Your task to perform on an android device: change the upload size in google photos Image 0: 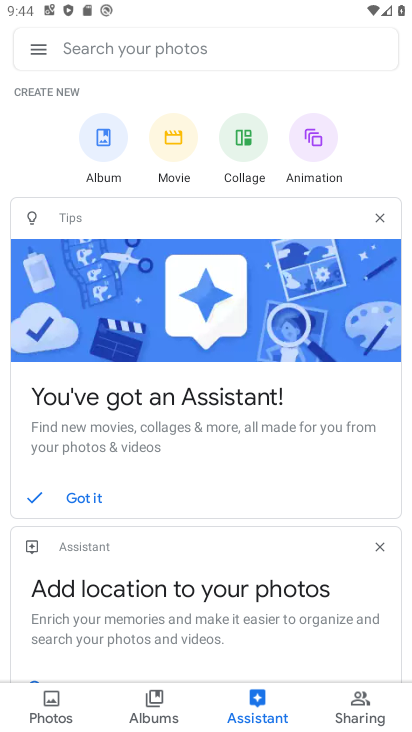
Step 0: press home button
Your task to perform on an android device: change the upload size in google photos Image 1: 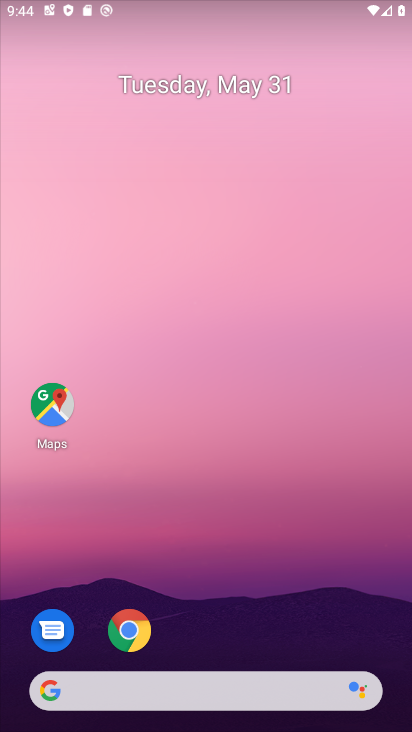
Step 1: drag from (237, 658) to (254, 190)
Your task to perform on an android device: change the upload size in google photos Image 2: 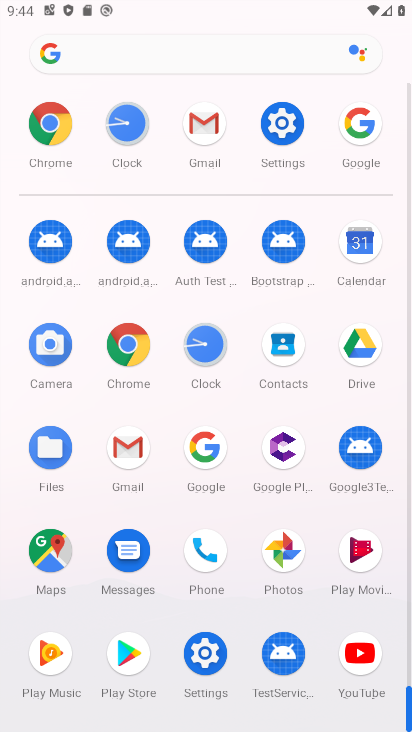
Step 2: drag from (182, 461) to (197, 245)
Your task to perform on an android device: change the upload size in google photos Image 3: 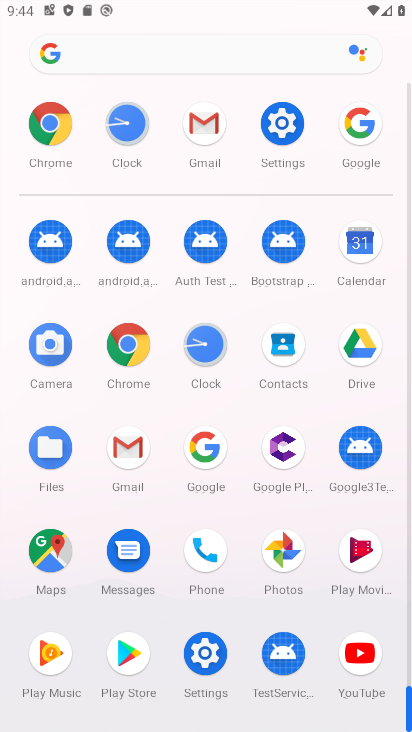
Step 3: click (281, 547)
Your task to perform on an android device: change the upload size in google photos Image 4: 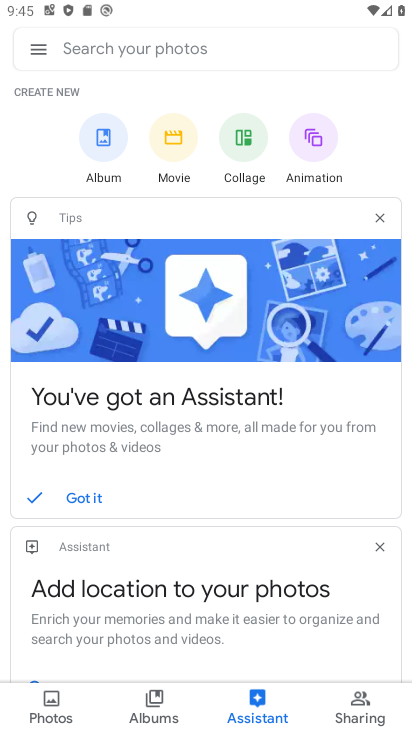
Step 4: click (35, 54)
Your task to perform on an android device: change the upload size in google photos Image 5: 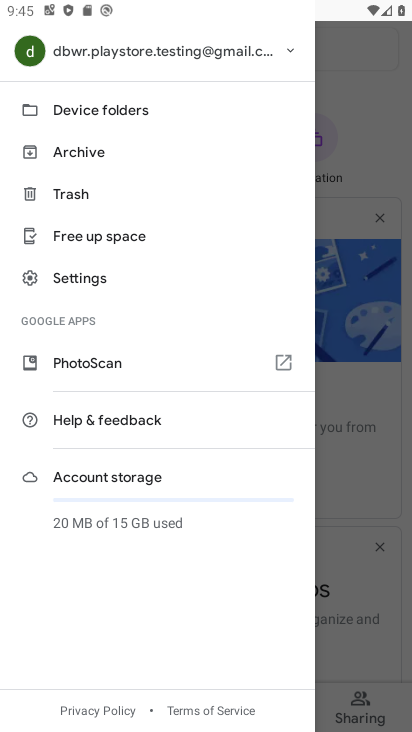
Step 5: click (110, 277)
Your task to perform on an android device: change the upload size in google photos Image 6: 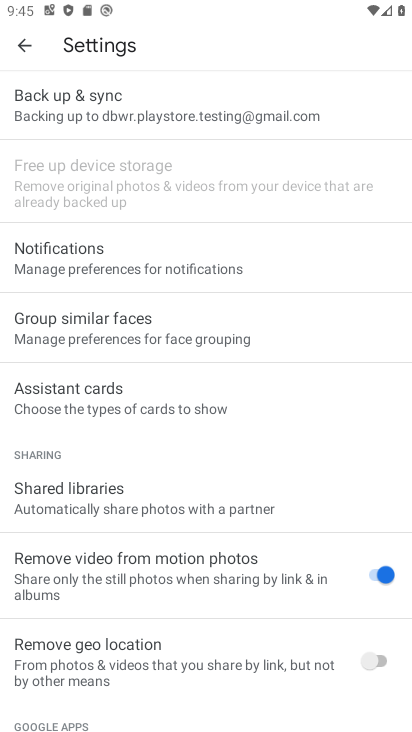
Step 6: click (127, 111)
Your task to perform on an android device: change the upload size in google photos Image 7: 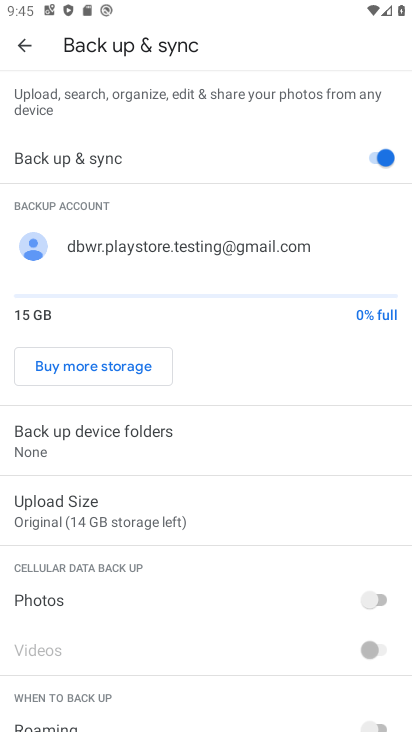
Step 7: click (107, 504)
Your task to perform on an android device: change the upload size in google photos Image 8: 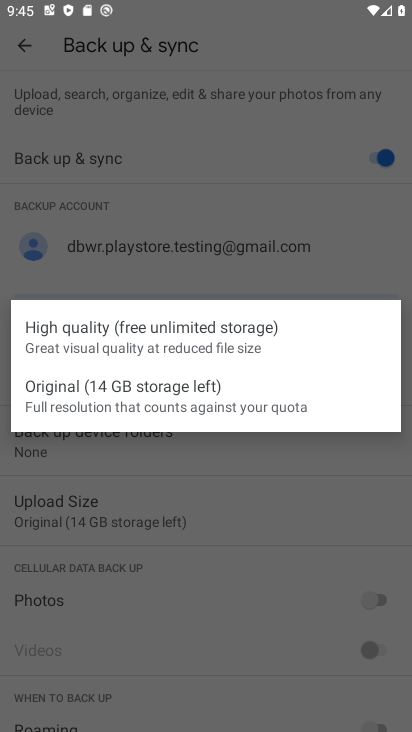
Step 8: click (199, 319)
Your task to perform on an android device: change the upload size in google photos Image 9: 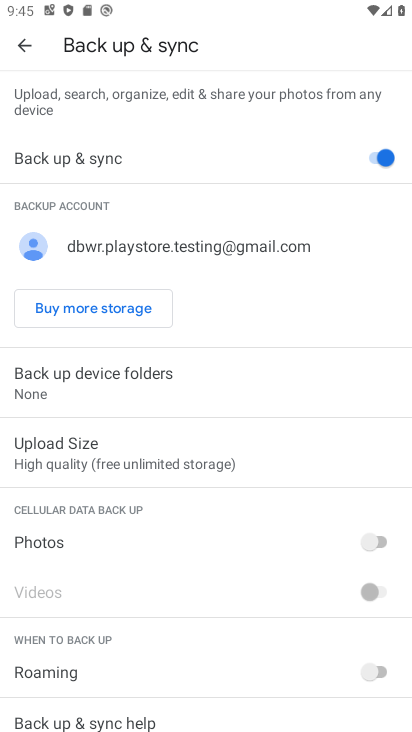
Step 9: task complete